Your task to perform on an android device: uninstall "Google Drive" Image 0: 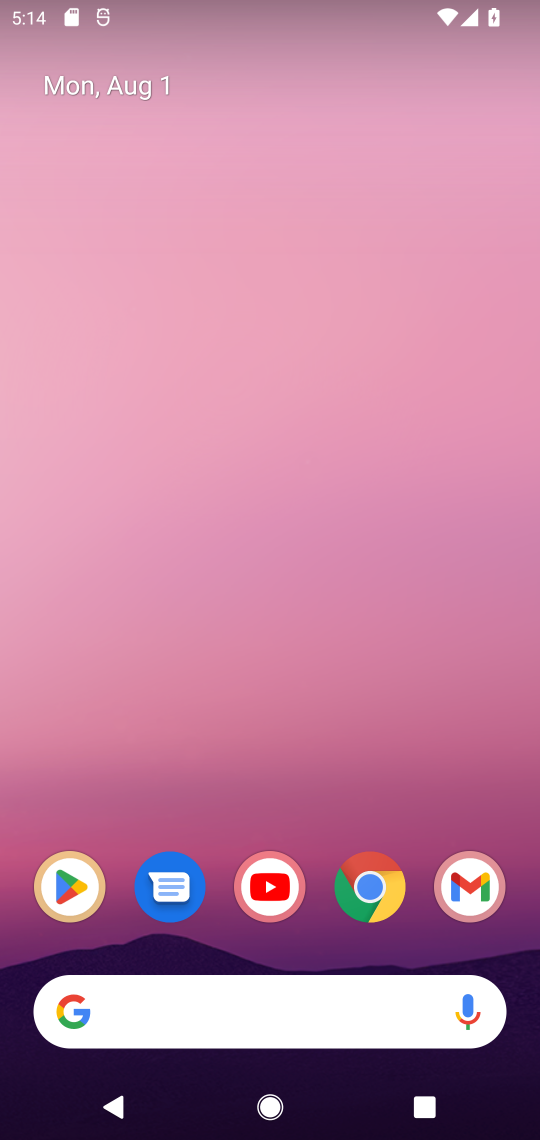
Step 0: click (43, 902)
Your task to perform on an android device: uninstall "Google Drive" Image 1: 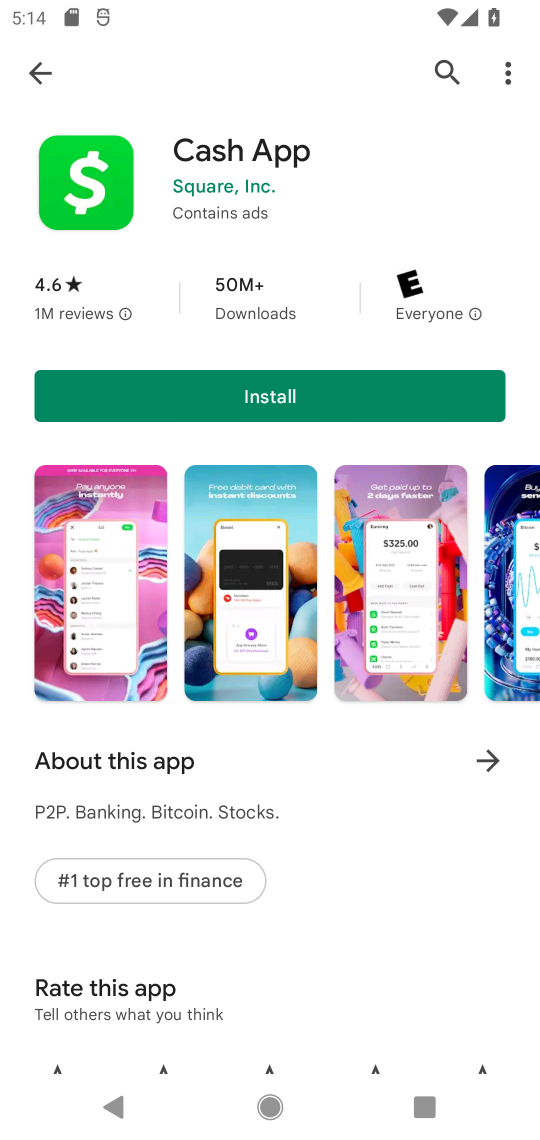
Step 1: click (48, 71)
Your task to perform on an android device: uninstall "Google Drive" Image 2: 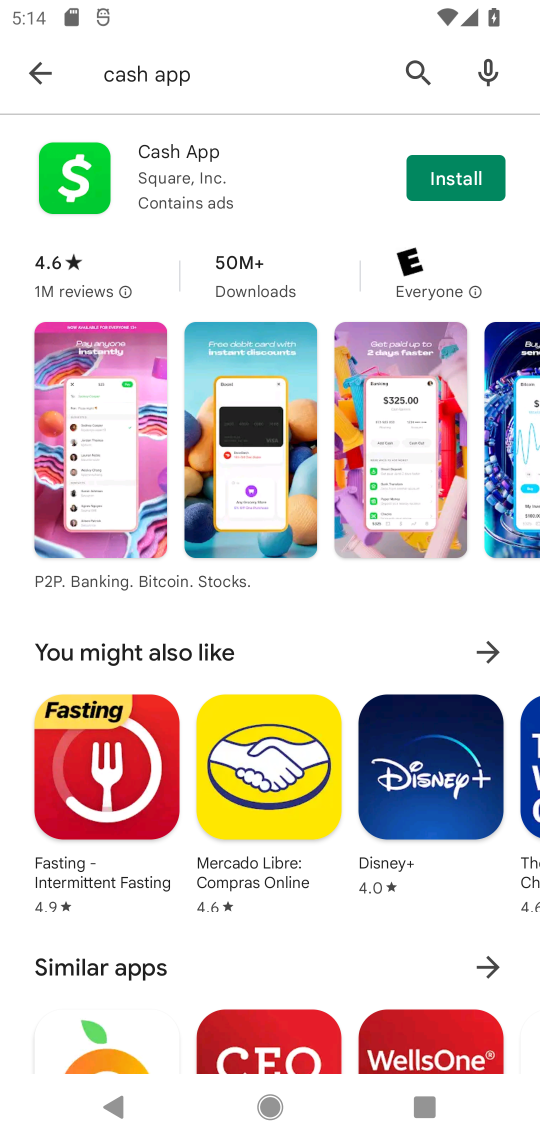
Step 2: click (48, 71)
Your task to perform on an android device: uninstall "Google Drive" Image 3: 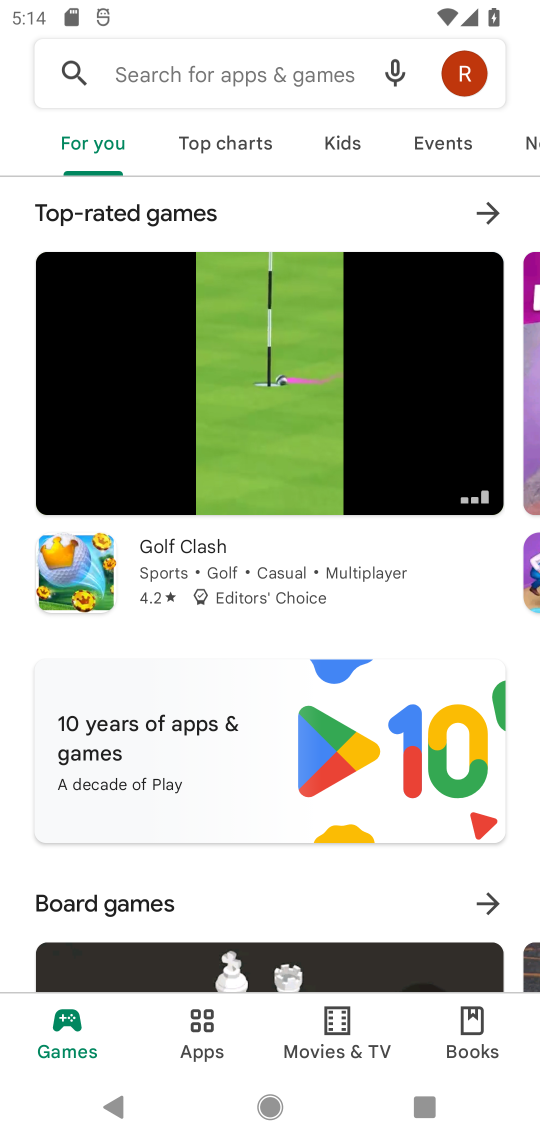
Step 3: click (227, 91)
Your task to perform on an android device: uninstall "Google Drive" Image 4: 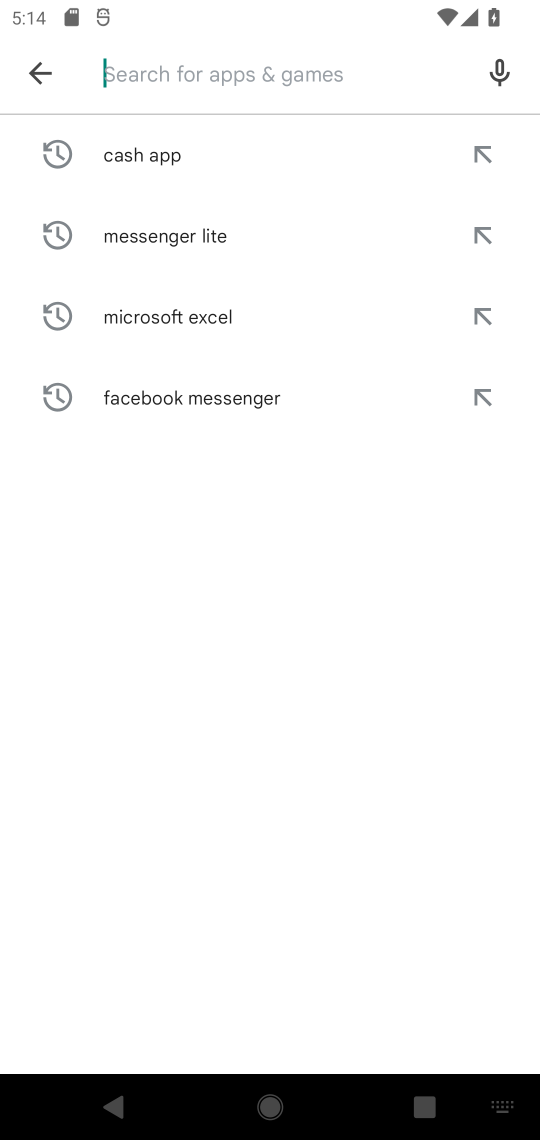
Step 4: type "Google Drive"
Your task to perform on an android device: uninstall "Google Drive" Image 5: 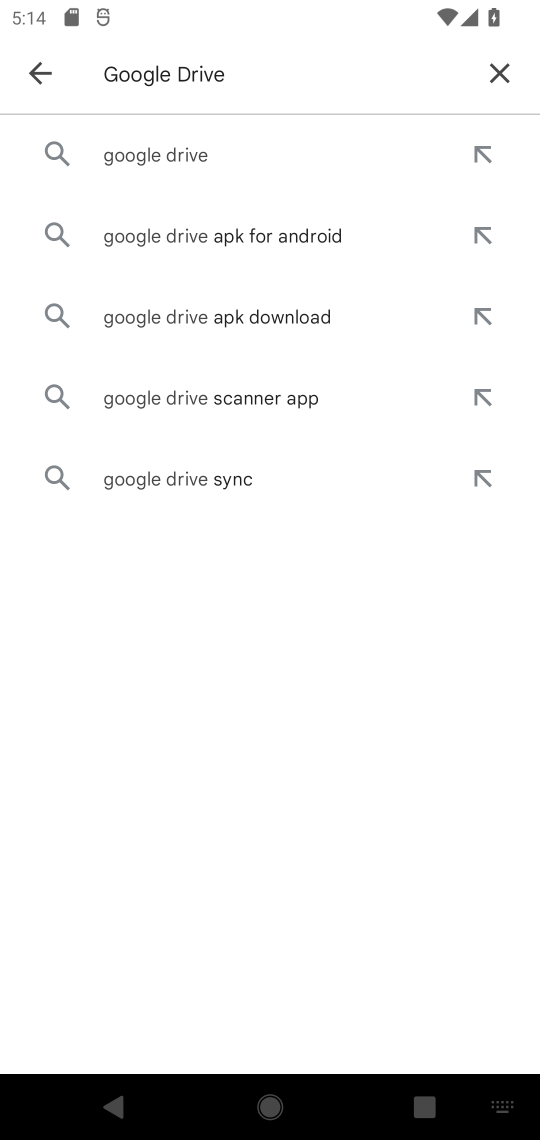
Step 5: click (95, 155)
Your task to perform on an android device: uninstall "Google Drive" Image 6: 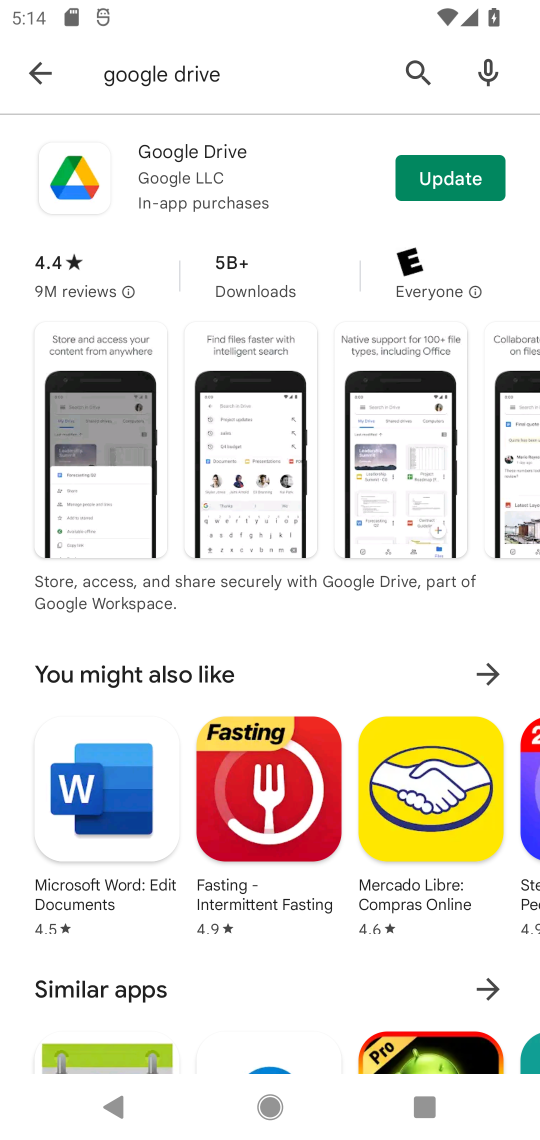
Step 6: task complete